Your task to perform on an android device: Go to calendar. Show me events next week Image 0: 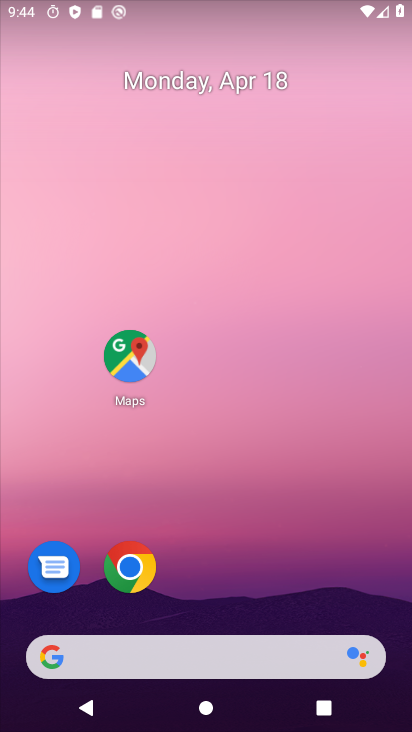
Step 0: drag from (288, 697) to (370, 237)
Your task to perform on an android device: Go to calendar. Show me events next week Image 1: 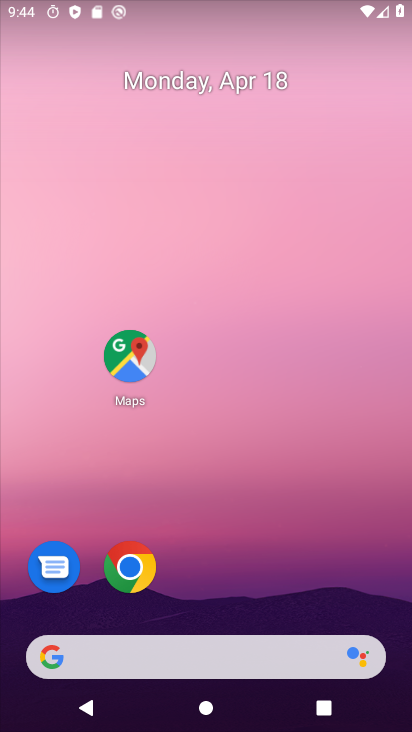
Step 1: drag from (243, 677) to (293, 237)
Your task to perform on an android device: Go to calendar. Show me events next week Image 2: 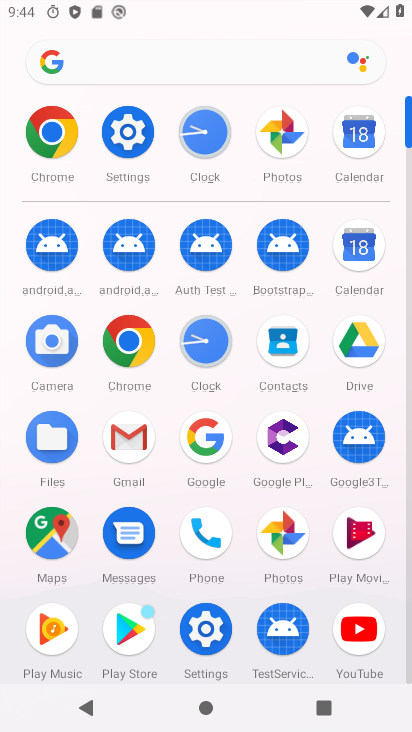
Step 2: click (372, 147)
Your task to perform on an android device: Go to calendar. Show me events next week Image 3: 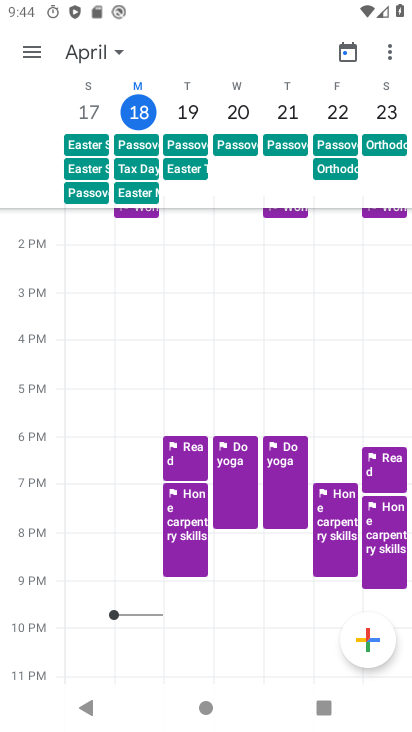
Step 3: click (36, 65)
Your task to perform on an android device: Go to calendar. Show me events next week Image 4: 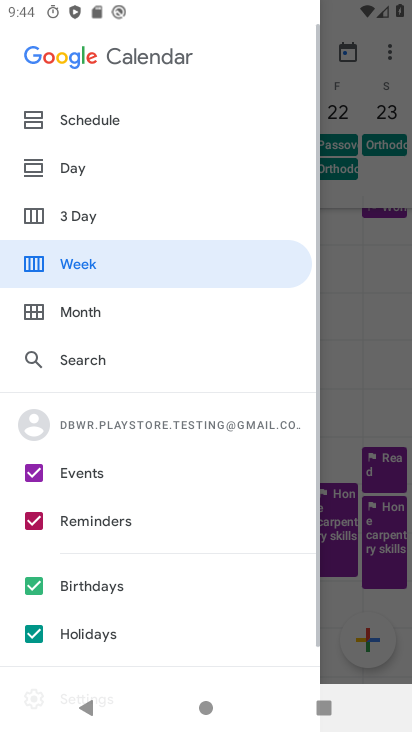
Step 4: click (79, 269)
Your task to perform on an android device: Go to calendar. Show me events next week Image 5: 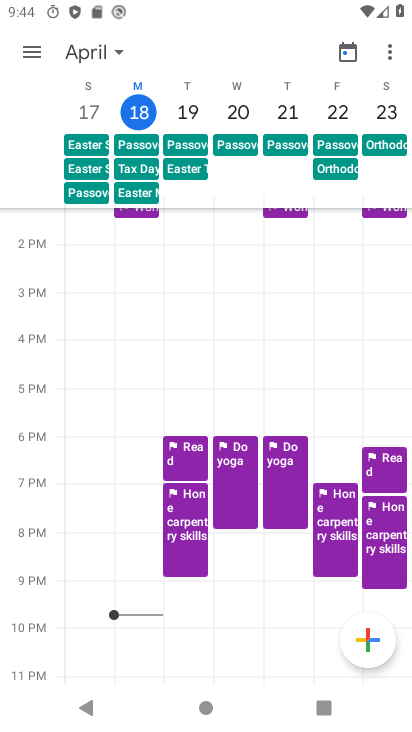
Step 5: task complete